Your task to perform on an android device: change notification settings in the gmail app Image 0: 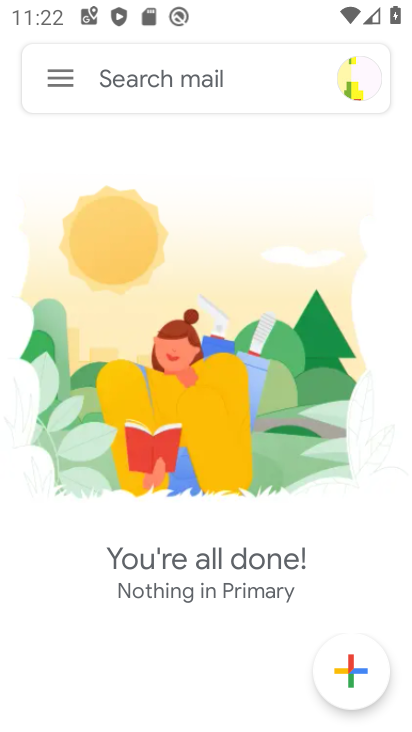
Step 0: press home button
Your task to perform on an android device: change notification settings in the gmail app Image 1: 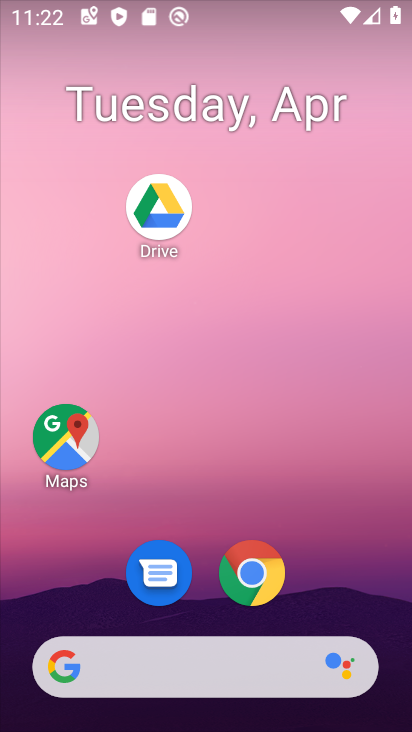
Step 1: drag from (343, 598) to (339, 121)
Your task to perform on an android device: change notification settings in the gmail app Image 2: 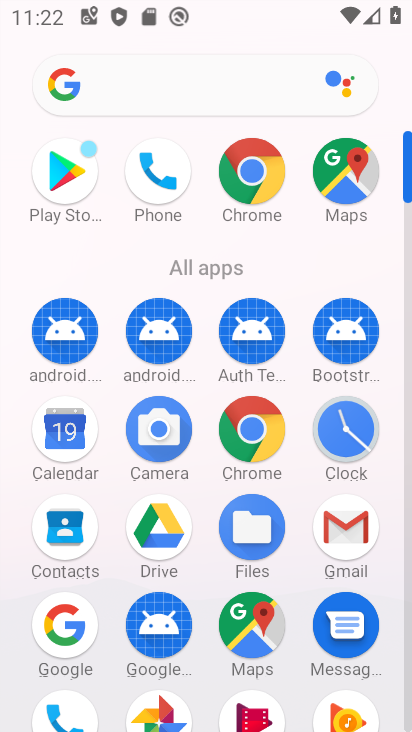
Step 2: drag from (386, 571) to (383, 300)
Your task to perform on an android device: change notification settings in the gmail app Image 3: 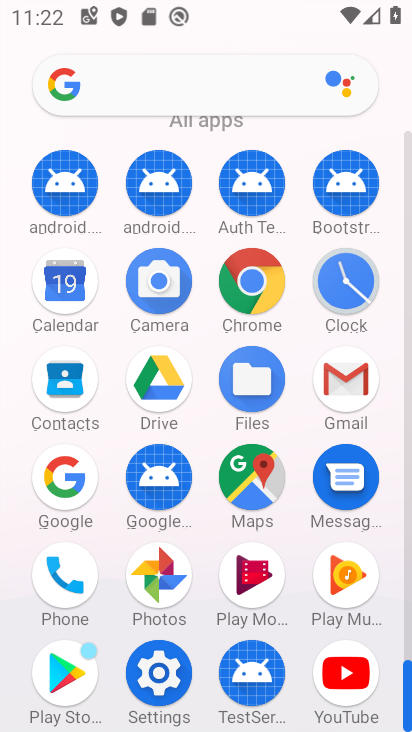
Step 3: click (362, 379)
Your task to perform on an android device: change notification settings in the gmail app Image 4: 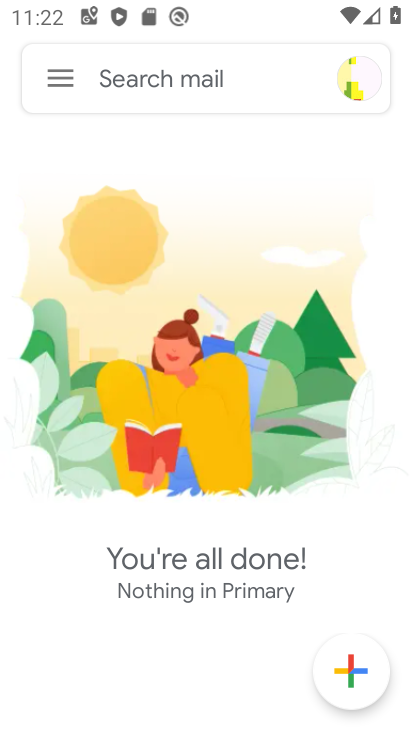
Step 4: click (66, 80)
Your task to perform on an android device: change notification settings in the gmail app Image 5: 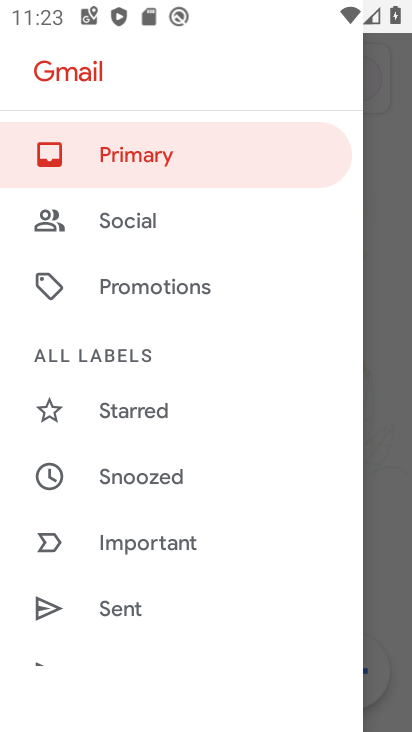
Step 5: drag from (312, 482) to (317, 380)
Your task to perform on an android device: change notification settings in the gmail app Image 6: 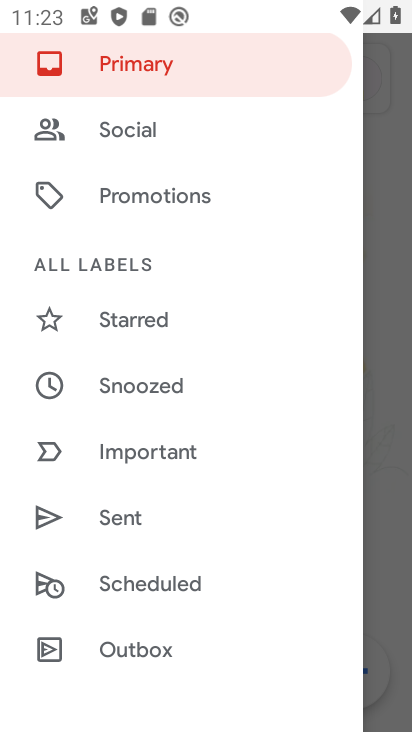
Step 6: drag from (303, 502) to (321, 384)
Your task to perform on an android device: change notification settings in the gmail app Image 7: 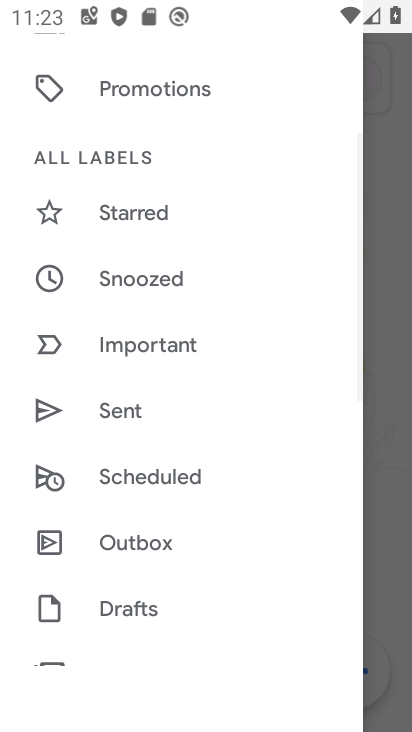
Step 7: drag from (303, 510) to (306, 403)
Your task to perform on an android device: change notification settings in the gmail app Image 8: 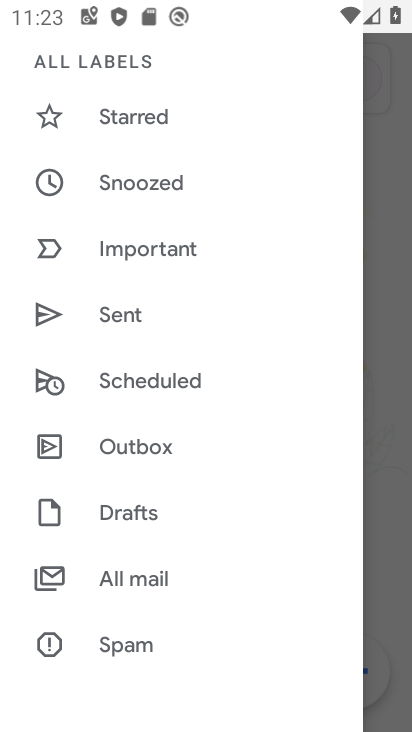
Step 8: drag from (308, 530) to (314, 420)
Your task to perform on an android device: change notification settings in the gmail app Image 9: 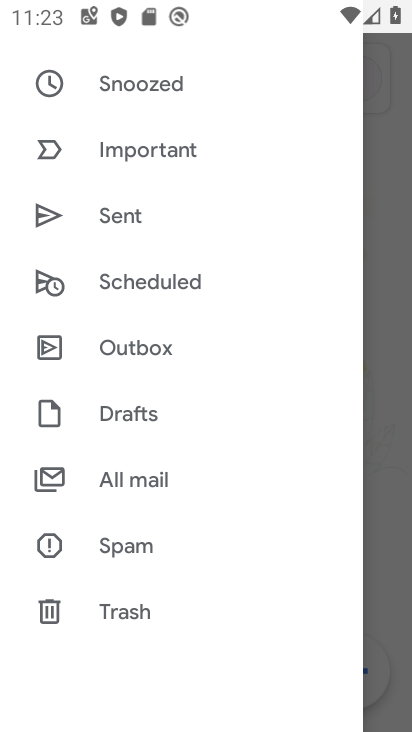
Step 9: drag from (301, 567) to (300, 431)
Your task to perform on an android device: change notification settings in the gmail app Image 10: 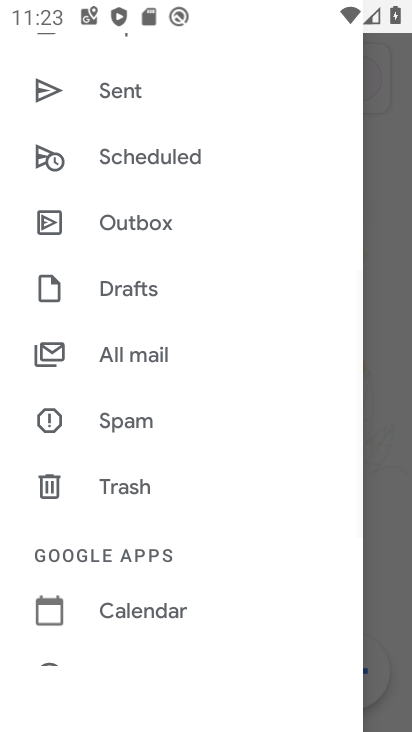
Step 10: drag from (283, 590) to (292, 462)
Your task to perform on an android device: change notification settings in the gmail app Image 11: 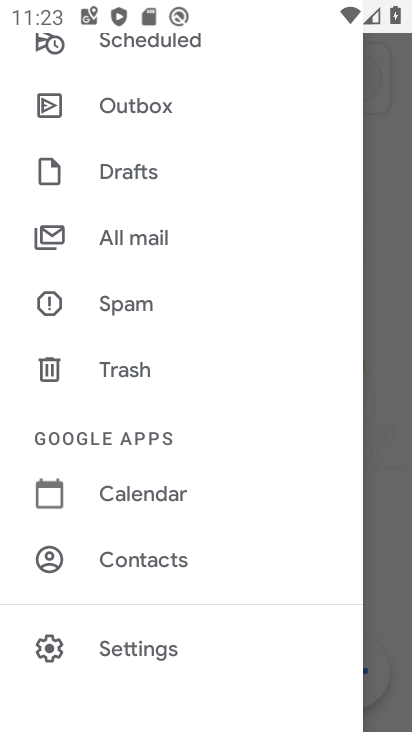
Step 11: drag from (259, 575) to (284, 442)
Your task to perform on an android device: change notification settings in the gmail app Image 12: 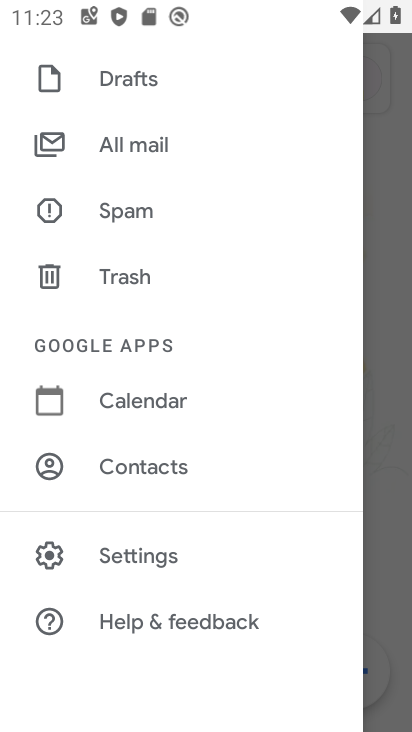
Step 12: drag from (257, 584) to (258, 475)
Your task to perform on an android device: change notification settings in the gmail app Image 13: 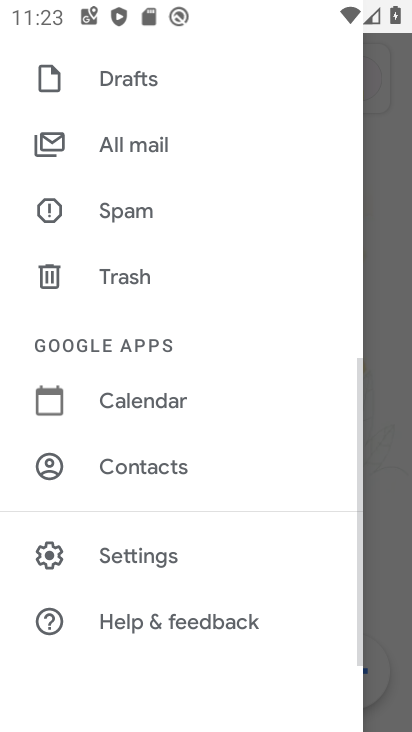
Step 13: click (137, 553)
Your task to perform on an android device: change notification settings in the gmail app Image 14: 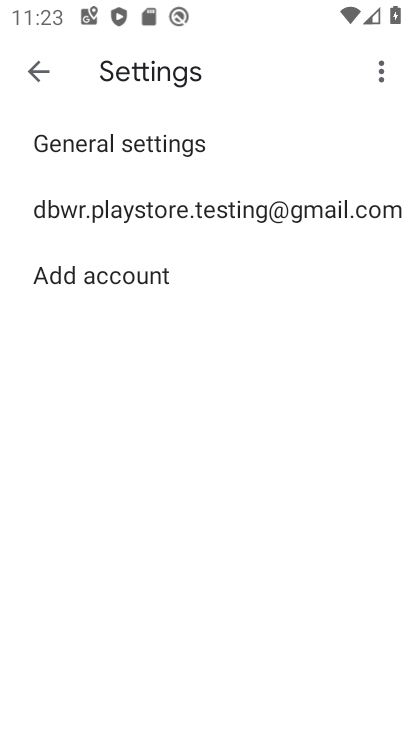
Step 14: click (270, 210)
Your task to perform on an android device: change notification settings in the gmail app Image 15: 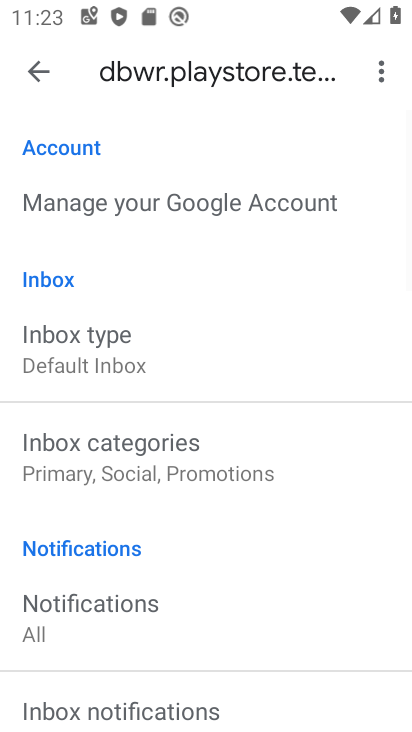
Step 15: drag from (341, 606) to (323, 439)
Your task to perform on an android device: change notification settings in the gmail app Image 16: 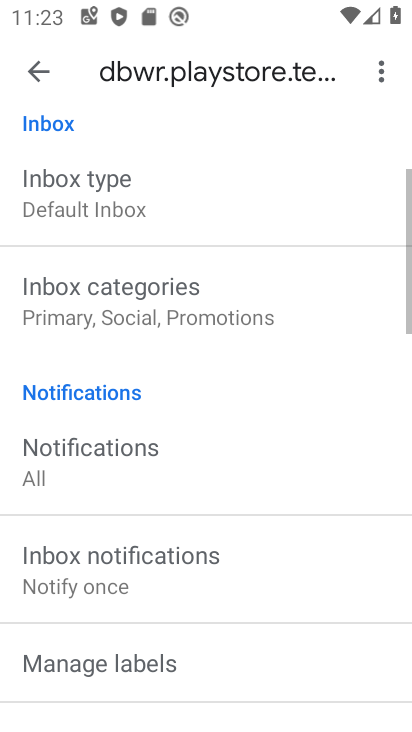
Step 16: drag from (332, 581) to (332, 440)
Your task to perform on an android device: change notification settings in the gmail app Image 17: 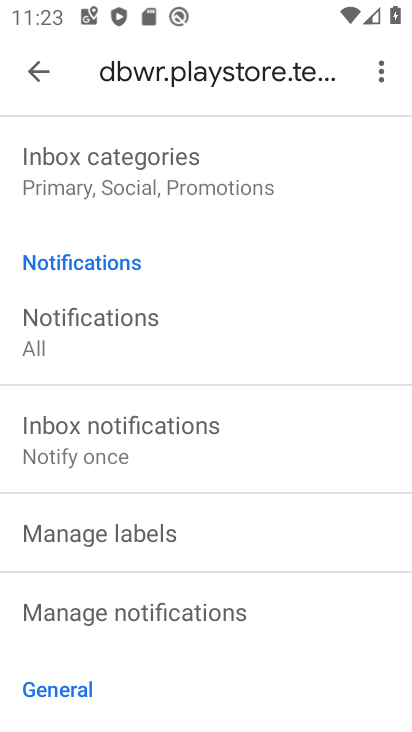
Step 17: drag from (333, 633) to (336, 472)
Your task to perform on an android device: change notification settings in the gmail app Image 18: 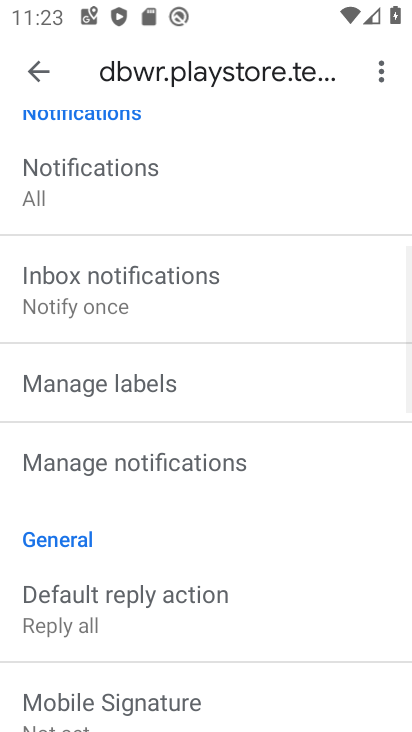
Step 18: drag from (328, 621) to (345, 494)
Your task to perform on an android device: change notification settings in the gmail app Image 19: 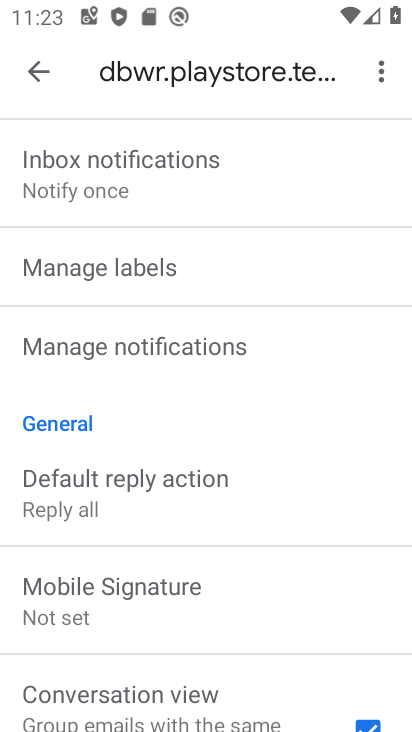
Step 19: drag from (314, 645) to (311, 458)
Your task to perform on an android device: change notification settings in the gmail app Image 20: 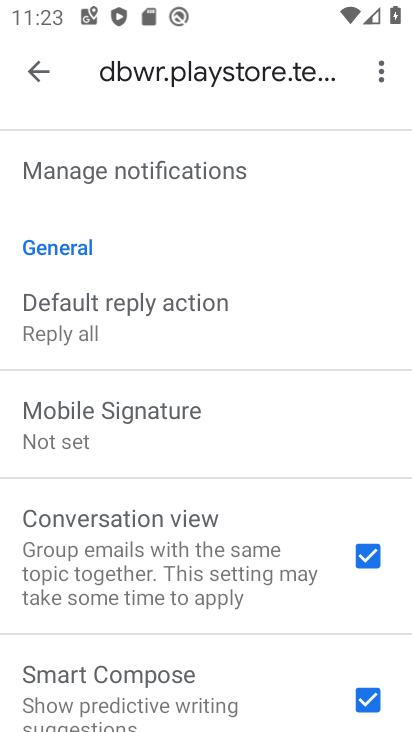
Step 20: drag from (281, 655) to (274, 470)
Your task to perform on an android device: change notification settings in the gmail app Image 21: 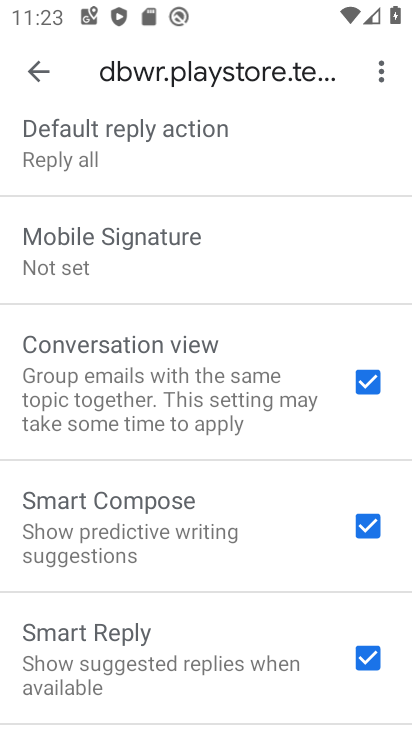
Step 21: drag from (274, 231) to (271, 466)
Your task to perform on an android device: change notification settings in the gmail app Image 22: 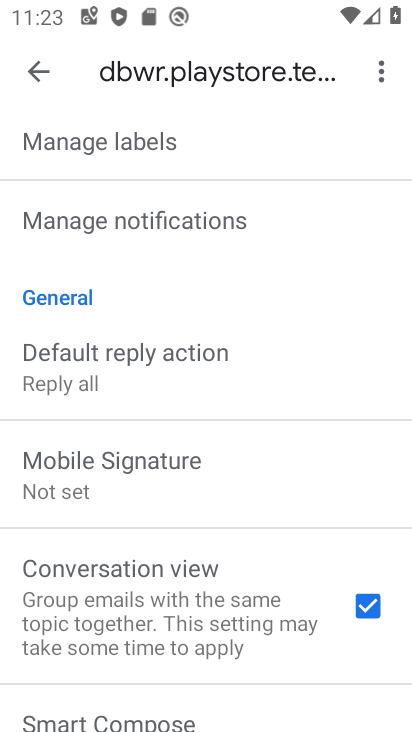
Step 22: drag from (268, 232) to (276, 402)
Your task to perform on an android device: change notification settings in the gmail app Image 23: 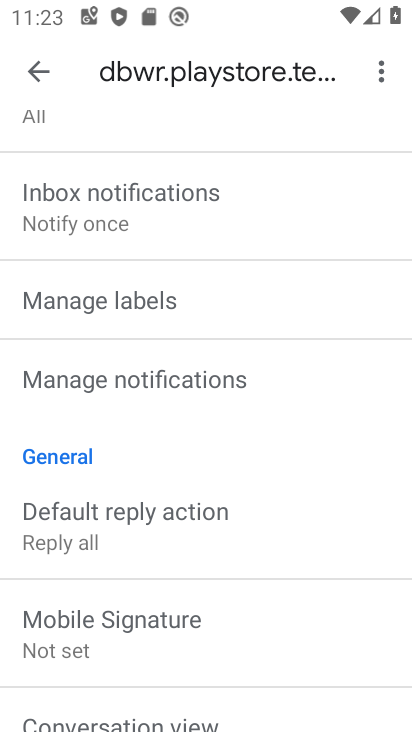
Step 23: drag from (300, 198) to (300, 401)
Your task to perform on an android device: change notification settings in the gmail app Image 24: 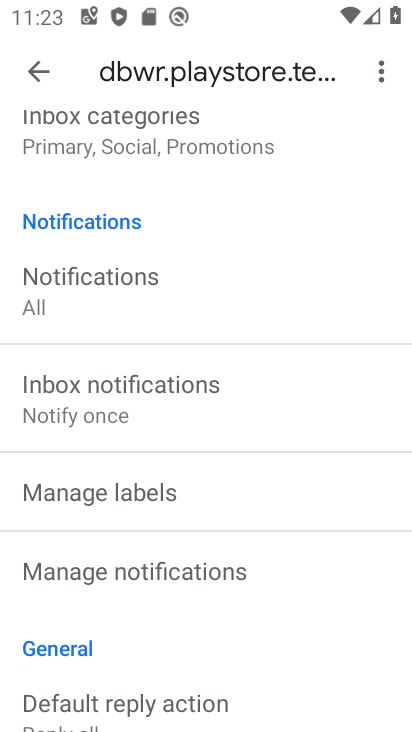
Step 24: click (63, 303)
Your task to perform on an android device: change notification settings in the gmail app Image 25: 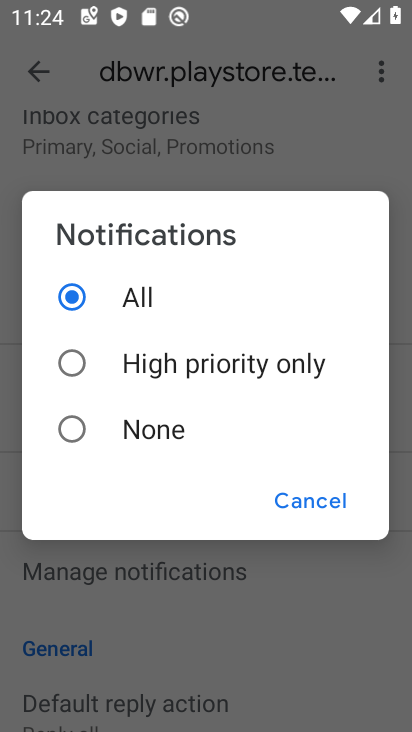
Step 25: click (75, 365)
Your task to perform on an android device: change notification settings in the gmail app Image 26: 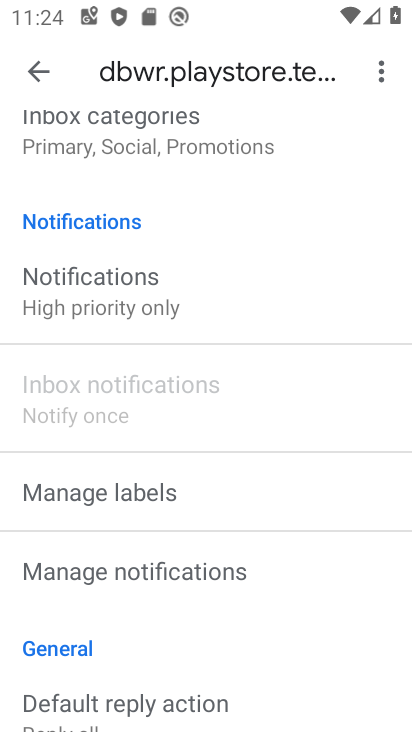
Step 26: task complete